Your task to perform on an android device: Open Google Maps and go to "Timeline" Image 0: 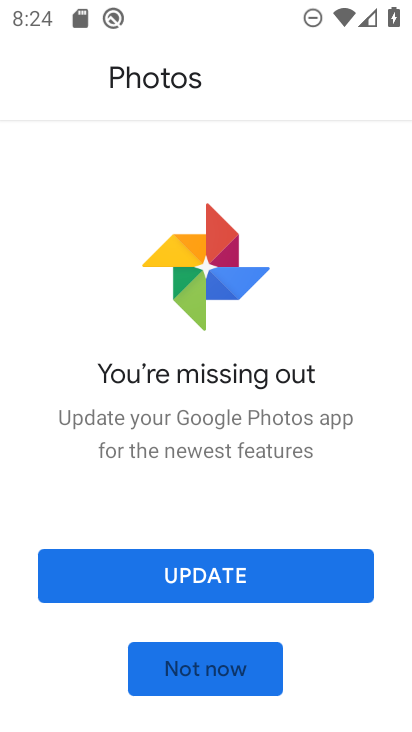
Step 0: press home button
Your task to perform on an android device: Open Google Maps and go to "Timeline" Image 1: 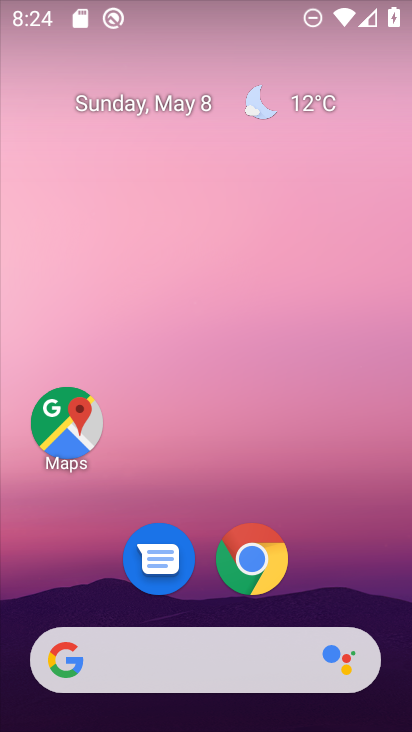
Step 1: click (63, 433)
Your task to perform on an android device: Open Google Maps and go to "Timeline" Image 2: 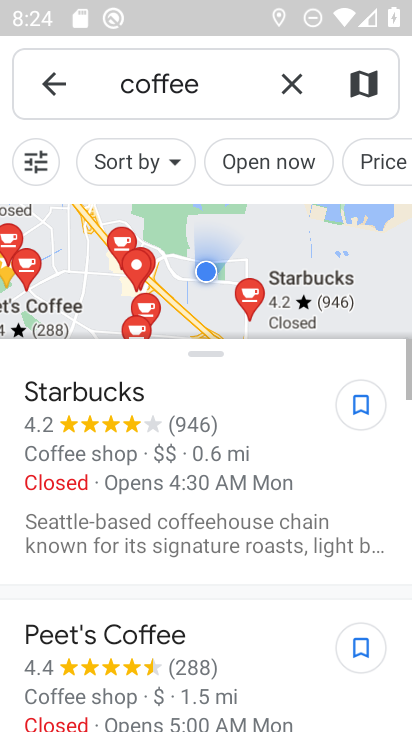
Step 2: click (299, 90)
Your task to perform on an android device: Open Google Maps and go to "Timeline" Image 3: 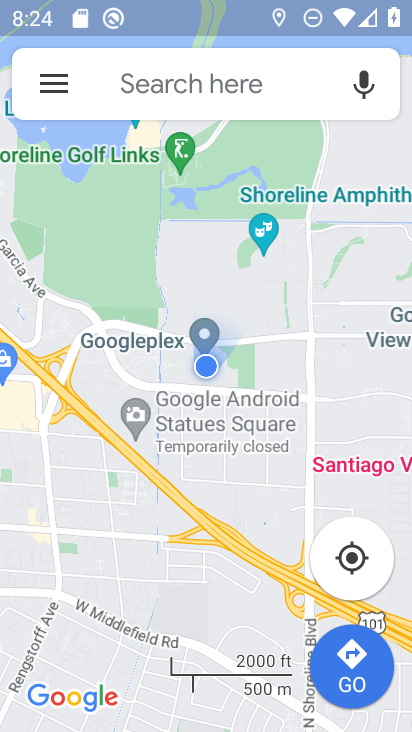
Step 3: click (42, 89)
Your task to perform on an android device: Open Google Maps and go to "Timeline" Image 4: 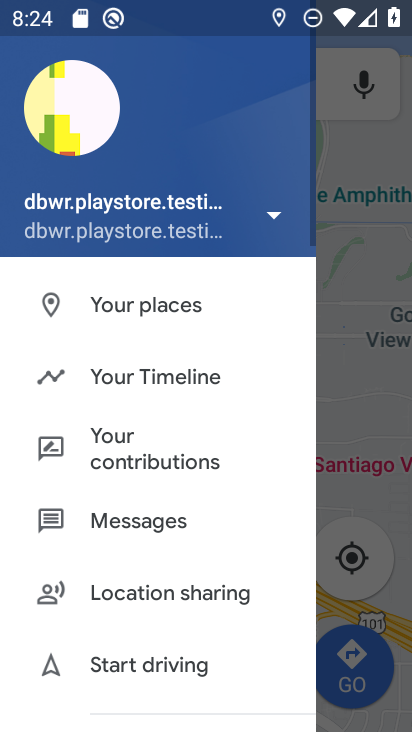
Step 4: click (111, 380)
Your task to perform on an android device: Open Google Maps and go to "Timeline" Image 5: 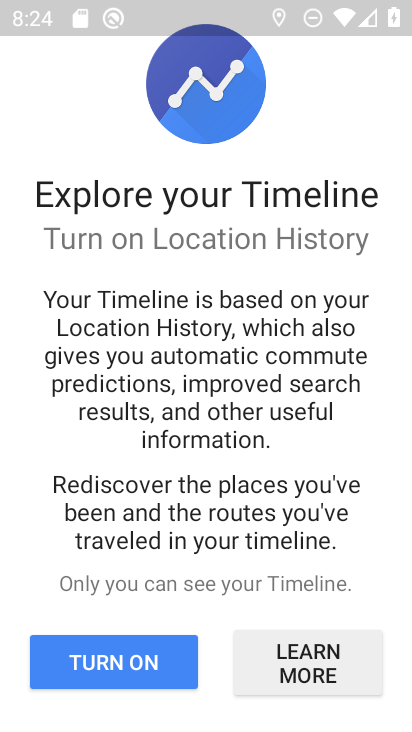
Step 5: drag from (187, 519) to (215, 269)
Your task to perform on an android device: Open Google Maps and go to "Timeline" Image 6: 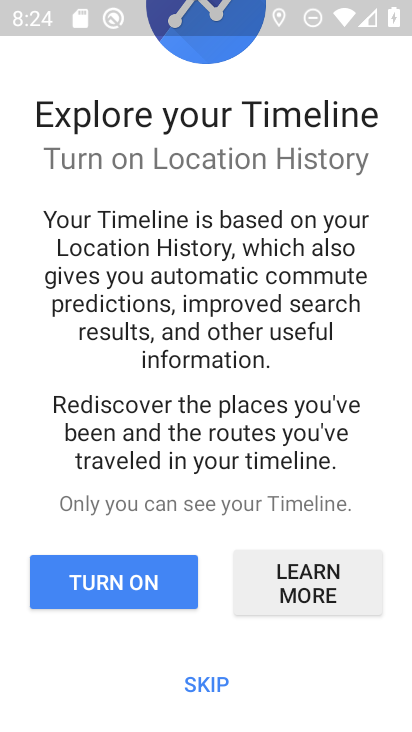
Step 6: click (201, 689)
Your task to perform on an android device: Open Google Maps and go to "Timeline" Image 7: 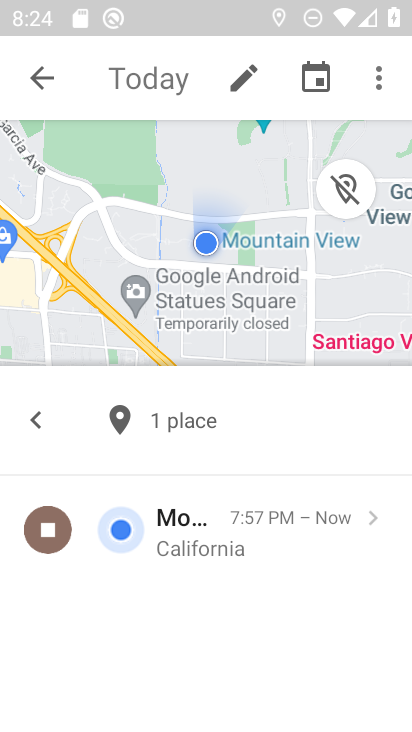
Step 7: task complete